Your task to perform on an android device: What's the news in Ecuador? Image 0: 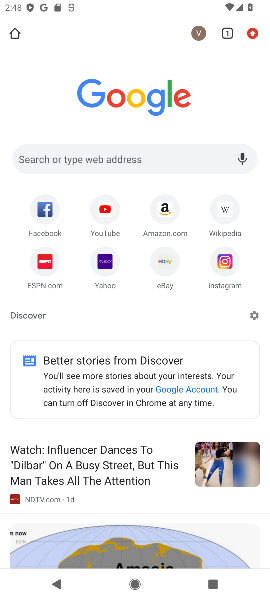
Step 0: press home button
Your task to perform on an android device: What's the news in Ecuador? Image 1: 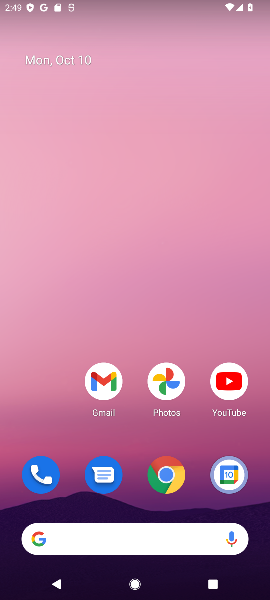
Step 1: drag from (135, 506) to (219, 148)
Your task to perform on an android device: What's the news in Ecuador? Image 2: 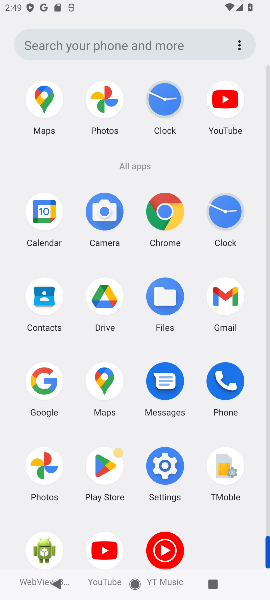
Step 2: click (174, 352)
Your task to perform on an android device: What's the news in Ecuador? Image 3: 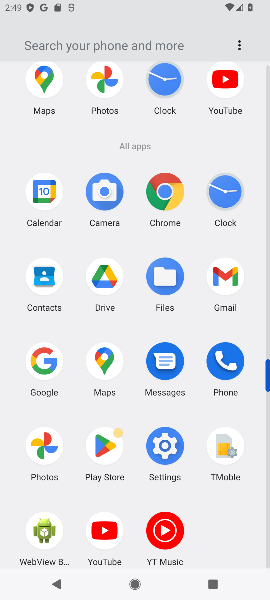
Step 3: click (49, 375)
Your task to perform on an android device: What's the news in Ecuador? Image 4: 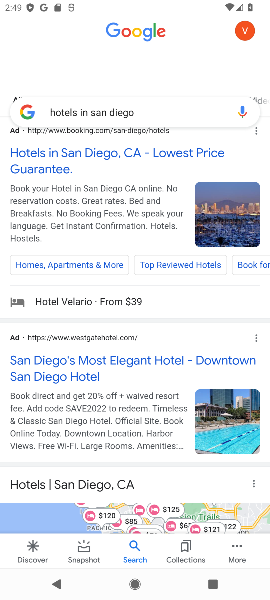
Step 4: click (161, 114)
Your task to perform on an android device: What's the news in Ecuador? Image 5: 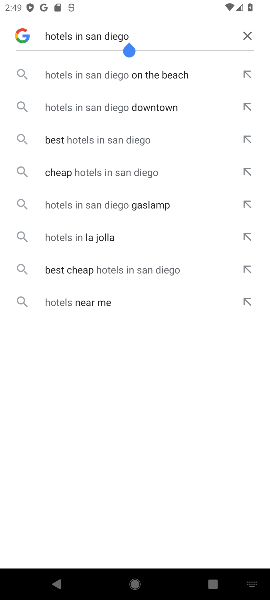
Step 5: click (226, 42)
Your task to perform on an android device: What's the news in Ecuador? Image 6: 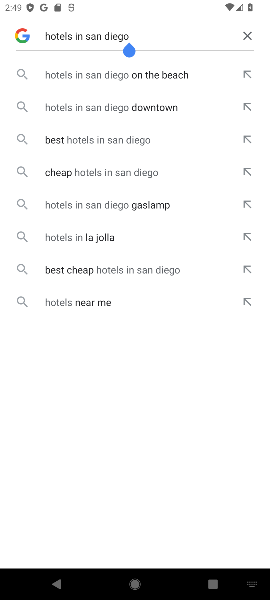
Step 6: click (252, 34)
Your task to perform on an android device: What's the news in Ecuador? Image 7: 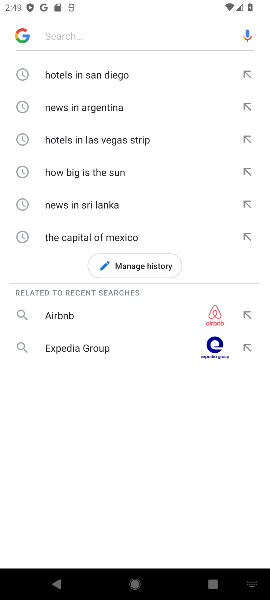
Step 7: type "news in Ecuador"
Your task to perform on an android device: What's the news in Ecuador? Image 8: 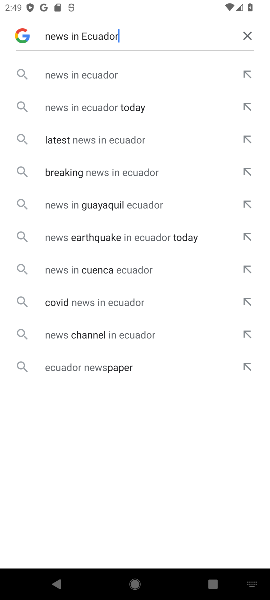
Step 8: click (122, 74)
Your task to perform on an android device: What's the news in Ecuador? Image 9: 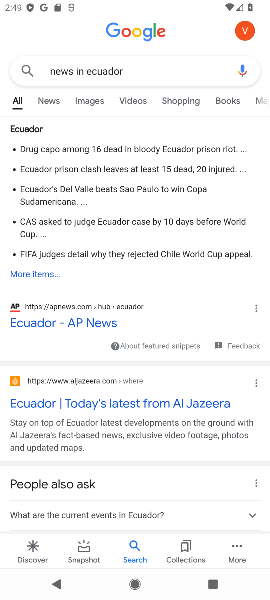
Step 9: task complete